Your task to perform on an android device: Open settings Image 0: 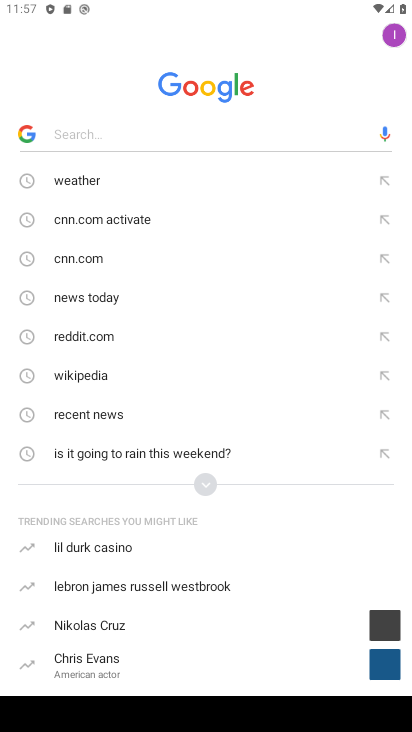
Step 0: press home button
Your task to perform on an android device: Open settings Image 1: 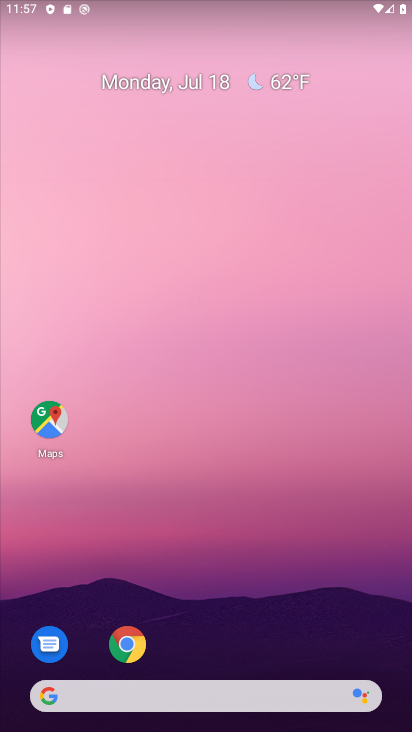
Step 1: drag from (392, 705) to (345, 75)
Your task to perform on an android device: Open settings Image 2: 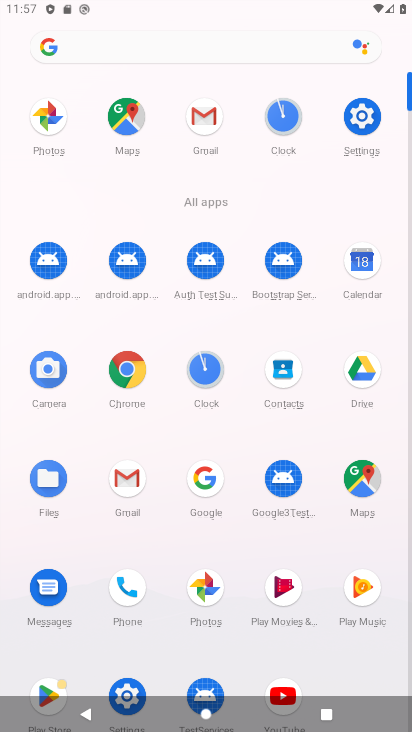
Step 2: click (366, 119)
Your task to perform on an android device: Open settings Image 3: 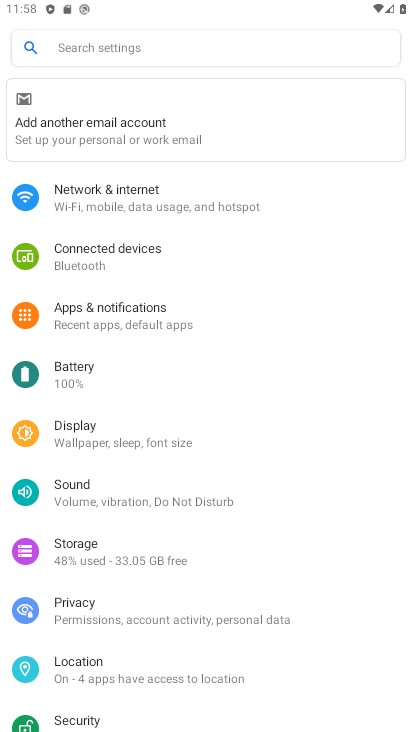
Step 3: task complete